Your task to perform on an android device: turn off sleep mode Image 0: 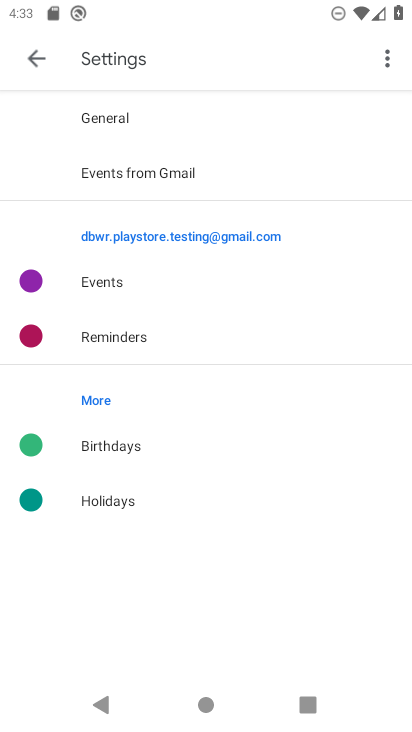
Step 0: press home button
Your task to perform on an android device: turn off sleep mode Image 1: 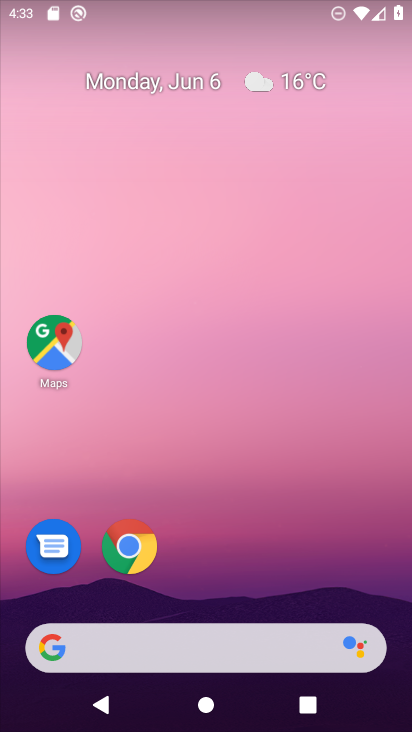
Step 1: drag from (190, 622) to (84, 35)
Your task to perform on an android device: turn off sleep mode Image 2: 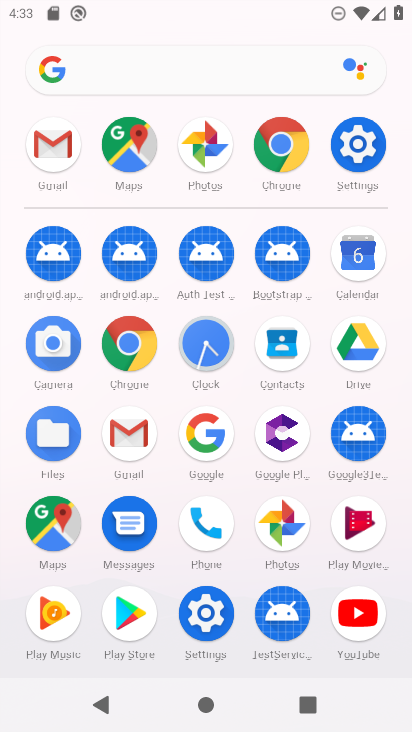
Step 2: click (361, 156)
Your task to perform on an android device: turn off sleep mode Image 3: 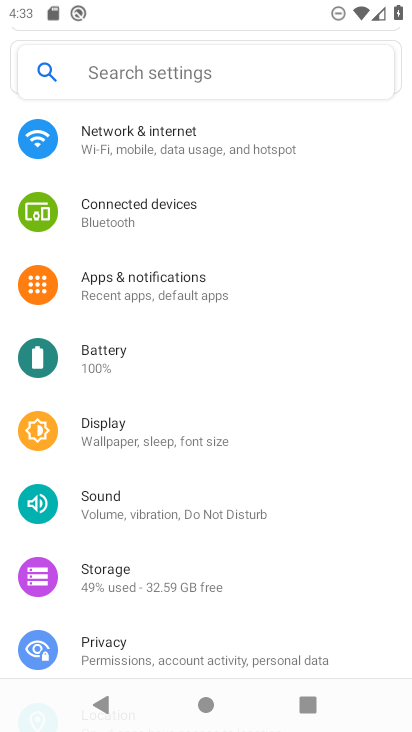
Step 3: click (106, 409)
Your task to perform on an android device: turn off sleep mode Image 4: 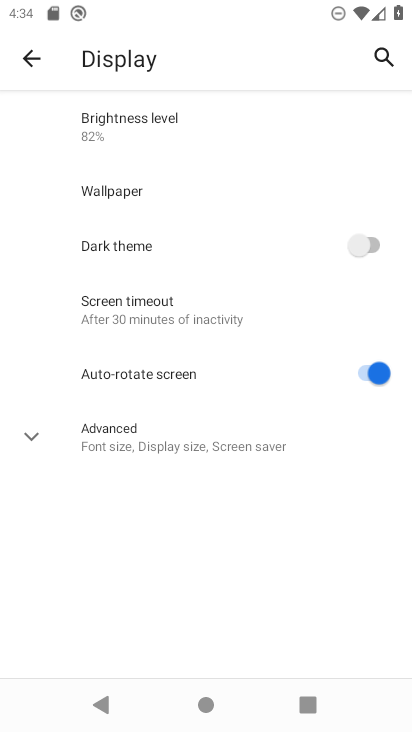
Step 4: click (138, 433)
Your task to perform on an android device: turn off sleep mode Image 5: 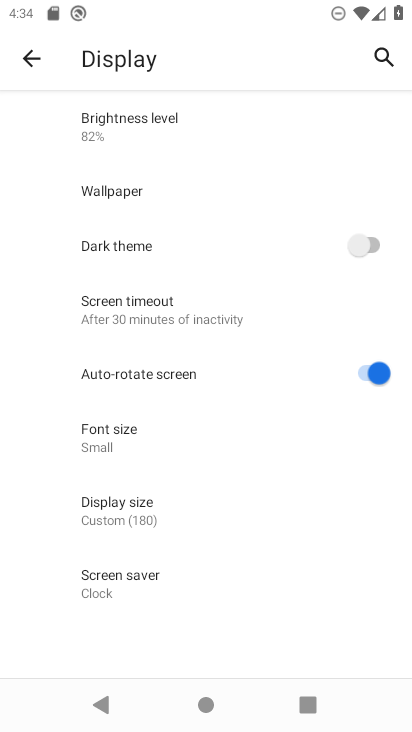
Step 5: task complete